Your task to perform on an android device: uninstall "YouTube Kids" Image 0: 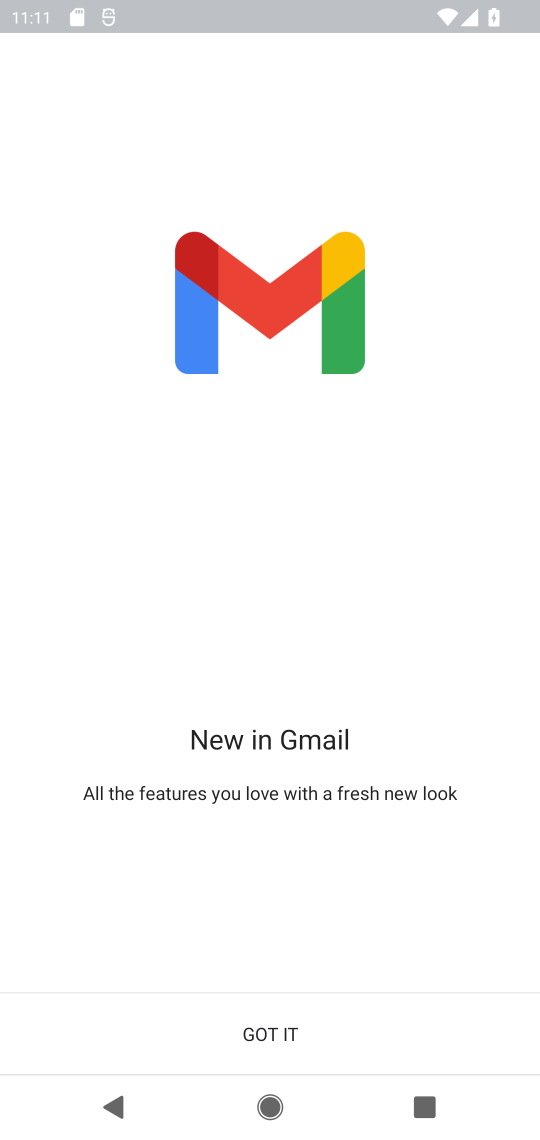
Step 0: press home button
Your task to perform on an android device: uninstall "YouTube Kids" Image 1: 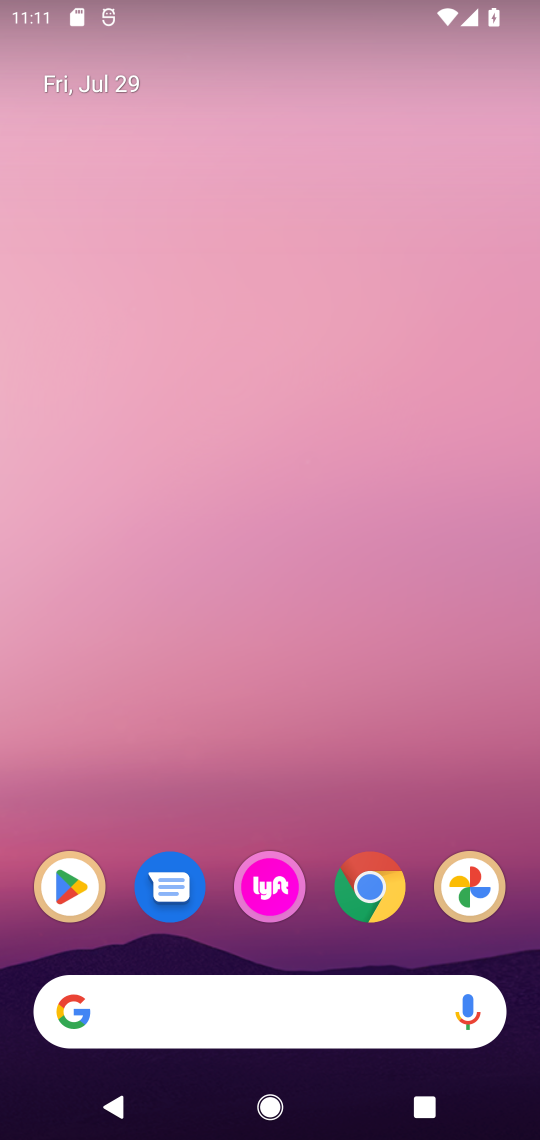
Step 1: drag from (177, 1003) to (230, 224)
Your task to perform on an android device: uninstall "YouTube Kids" Image 2: 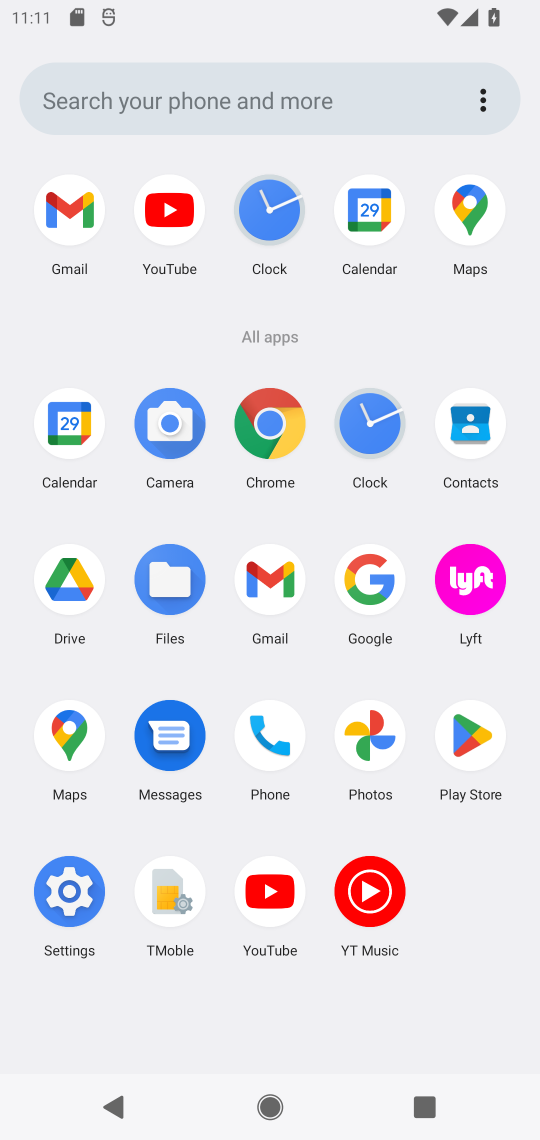
Step 2: click (481, 738)
Your task to perform on an android device: uninstall "YouTube Kids" Image 3: 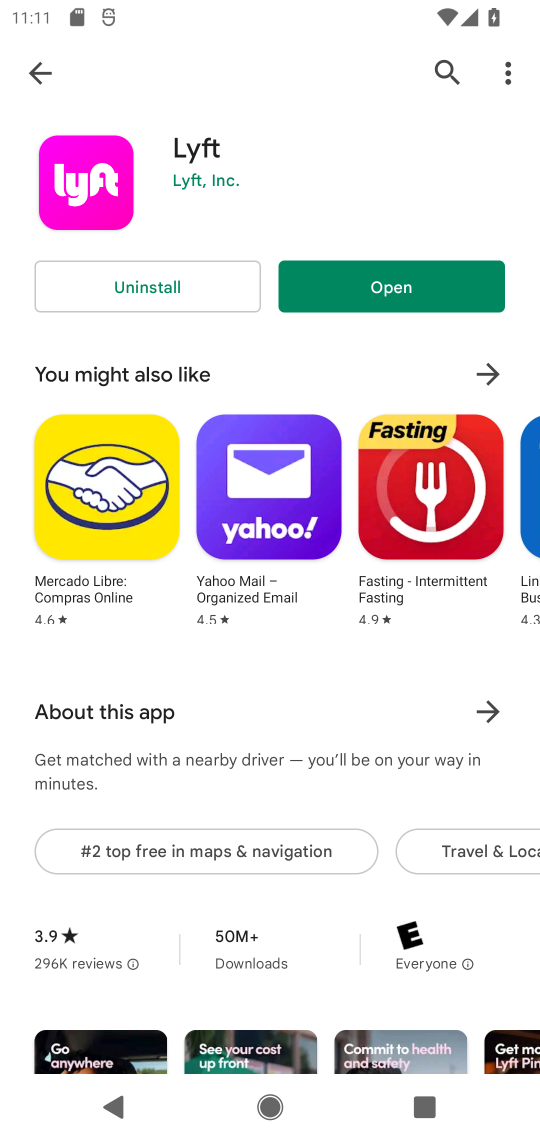
Step 3: click (442, 67)
Your task to perform on an android device: uninstall "YouTube Kids" Image 4: 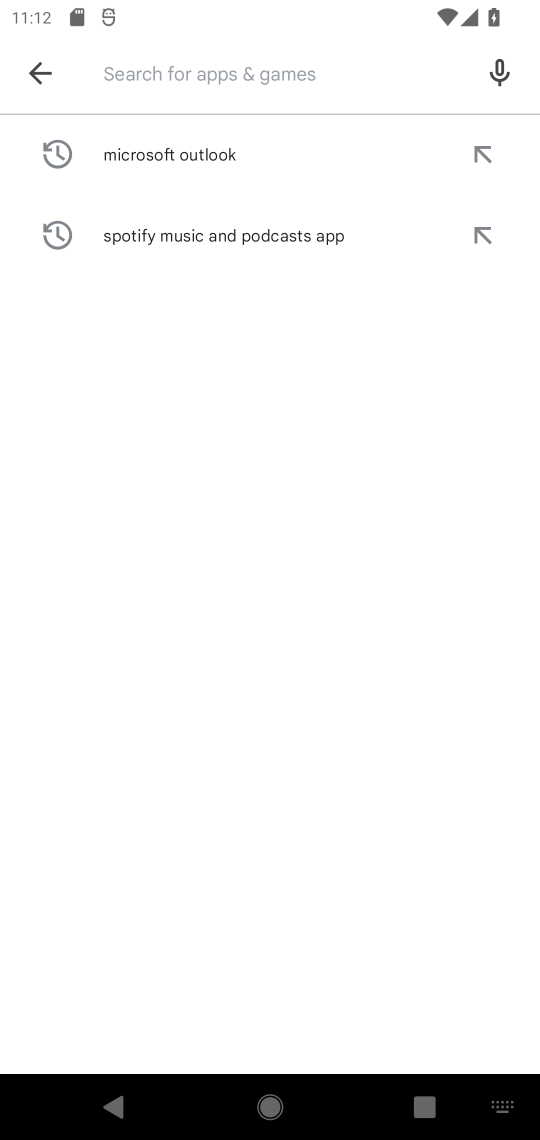
Step 4: type "YouTube Kids"
Your task to perform on an android device: uninstall "YouTube Kids" Image 5: 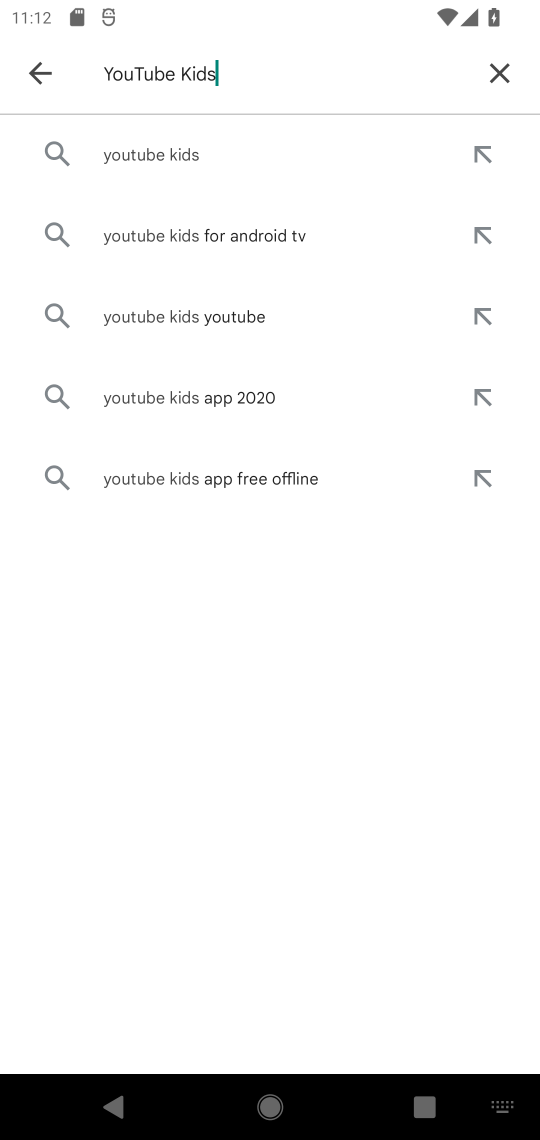
Step 5: click (193, 163)
Your task to perform on an android device: uninstall "YouTube Kids" Image 6: 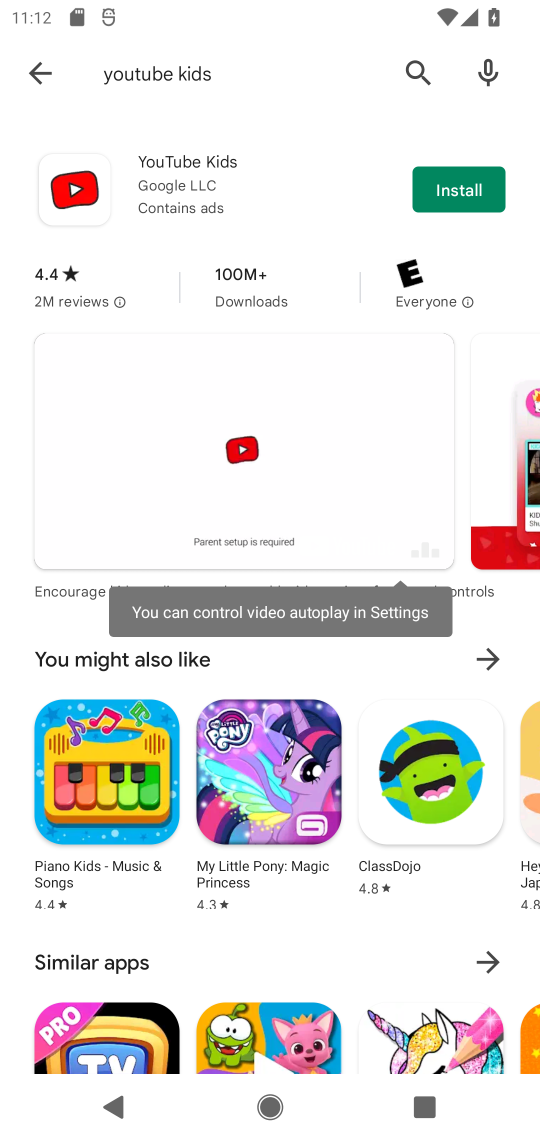
Step 6: task complete